Your task to perform on an android device: check google app version Image 0: 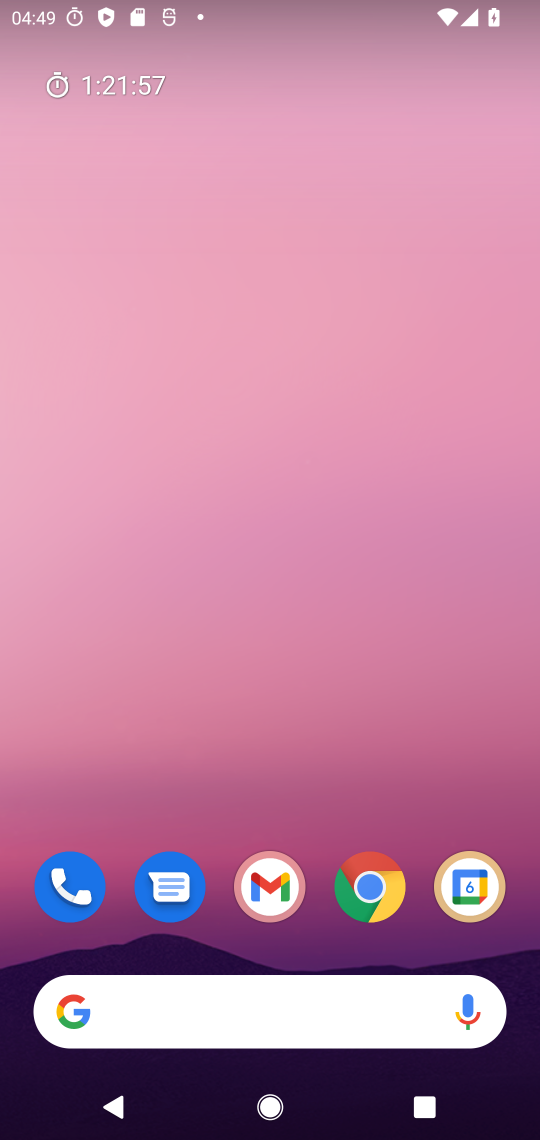
Step 0: drag from (312, 729) to (307, 231)
Your task to perform on an android device: check google app version Image 1: 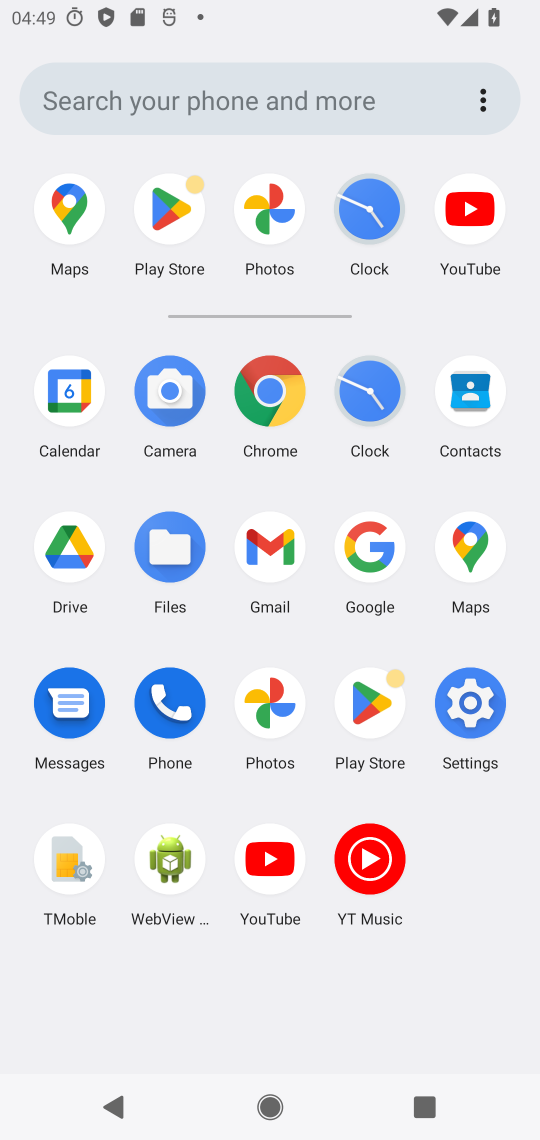
Step 1: click (357, 578)
Your task to perform on an android device: check google app version Image 2: 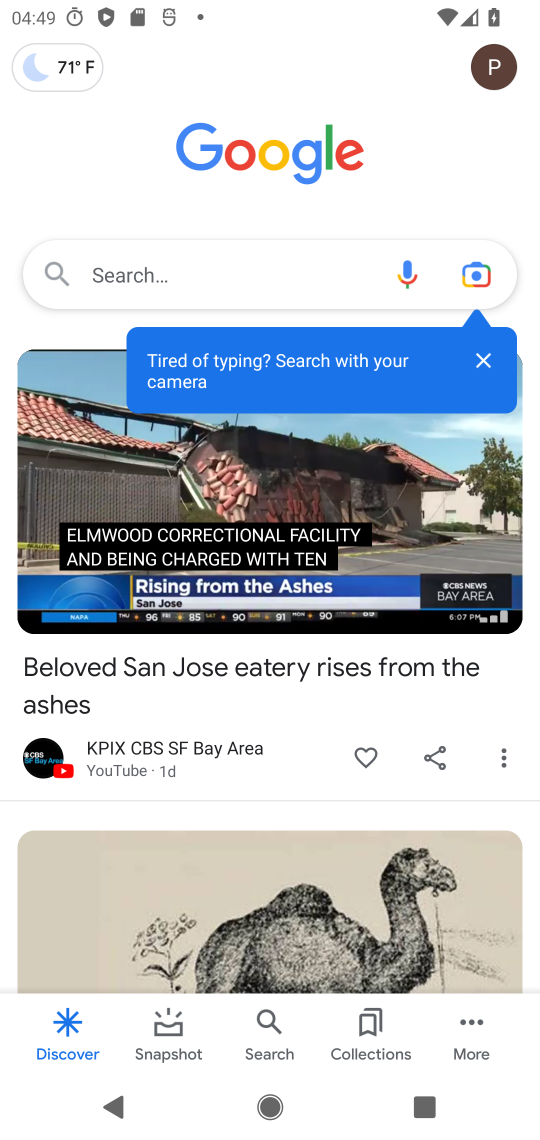
Step 2: click (479, 1037)
Your task to perform on an android device: check google app version Image 3: 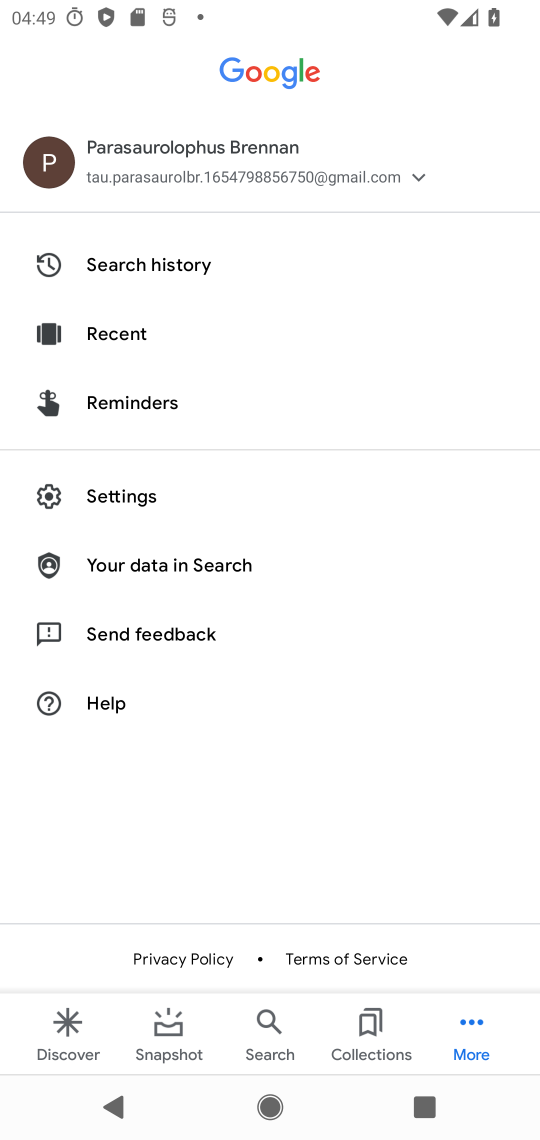
Step 3: click (207, 490)
Your task to perform on an android device: check google app version Image 4: 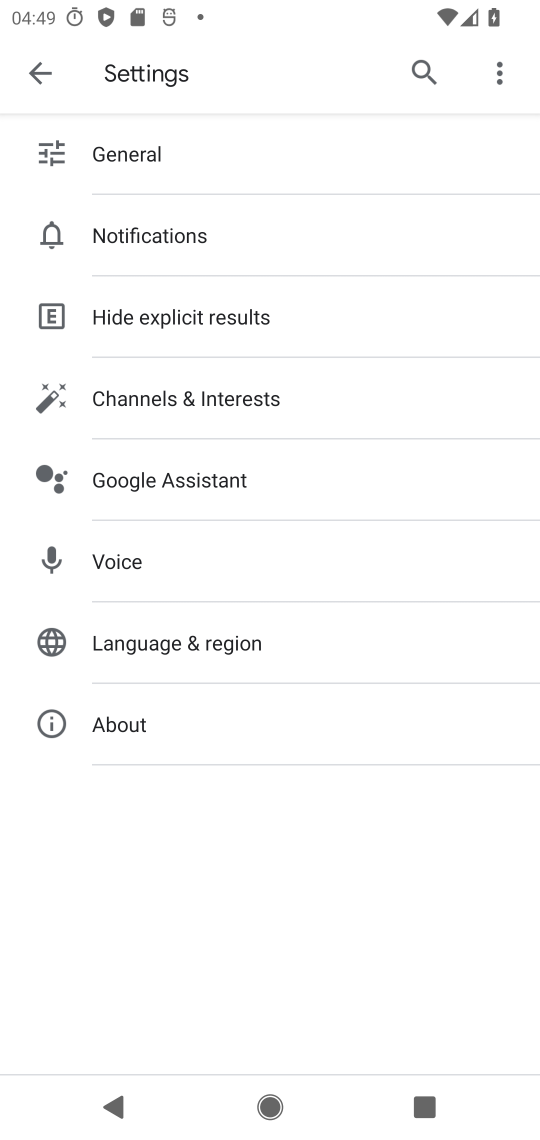
Step 4: click (166, 726)
Your task to perform on an android device: check google app version Image 5: 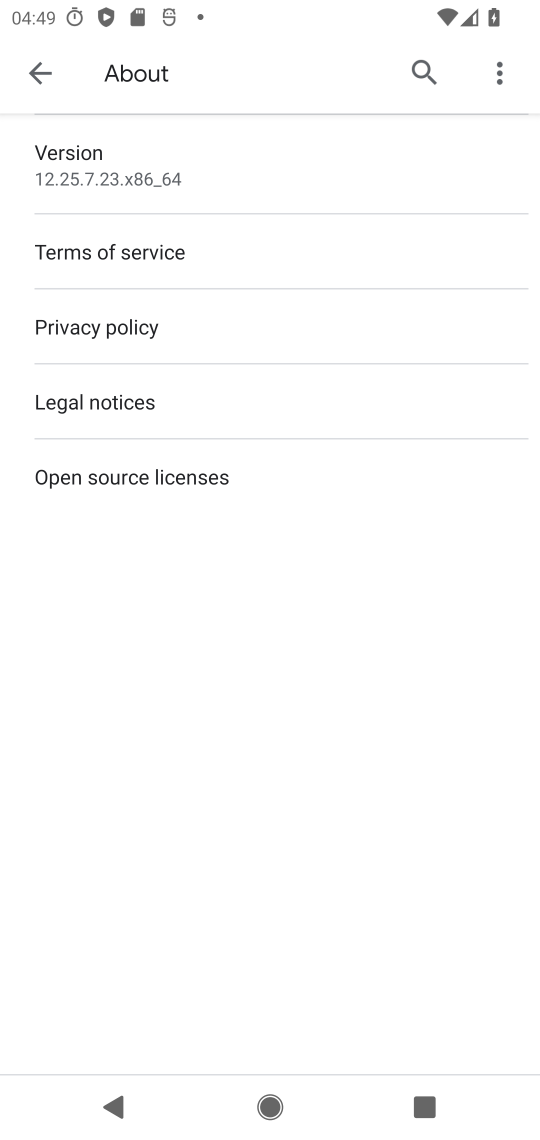
Step 5: task complete